Your task to perform on an android device: Open maps Image 0: 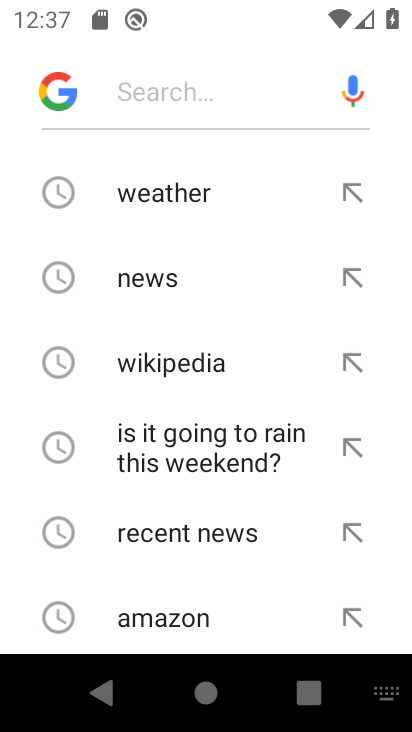
Step 0: press home button
Your task to perform on an android device: Open maps Image 1: 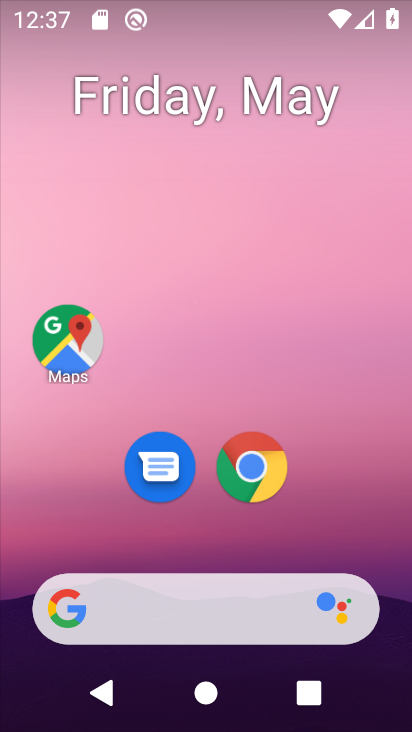
Step 1: drag from (369, 461) to (329, 156)
Your task to perform on an android device: Open maps Image 2: 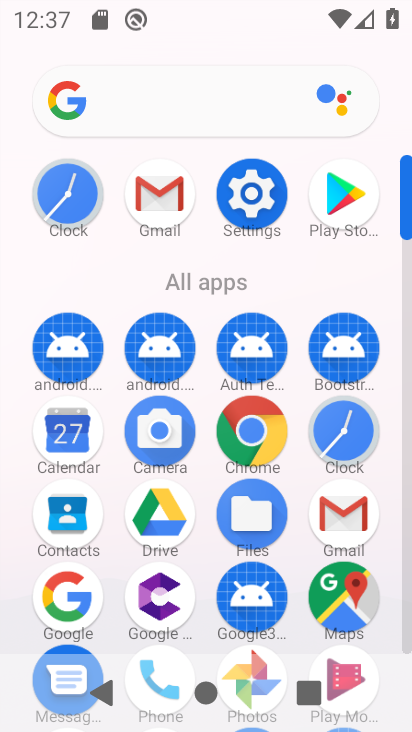
Step 2: click (343, 587)
Your task to perform on an android device: Open maps Image 3: 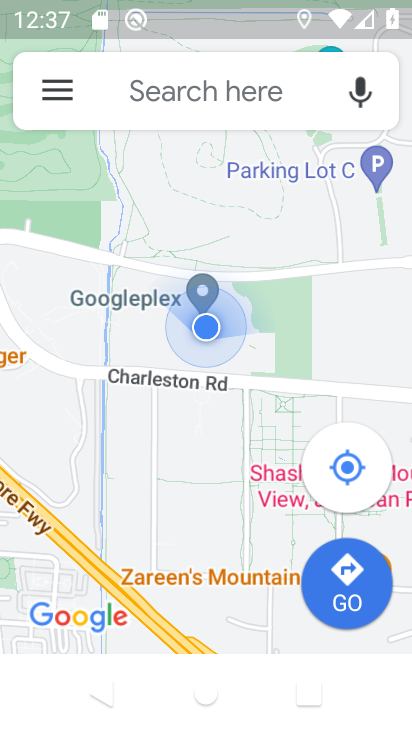
Step 3: task complete